Your task to perform on an android device: Open Google Maps Image 0: 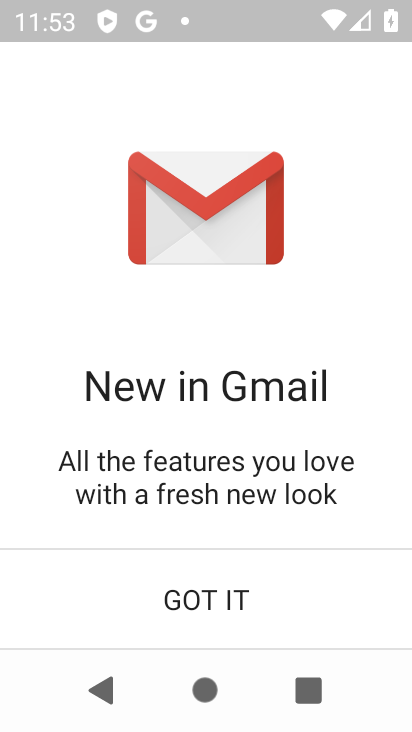
Step 0: press home button
Your task to perform on an android device: Open Google Maps Image 1: 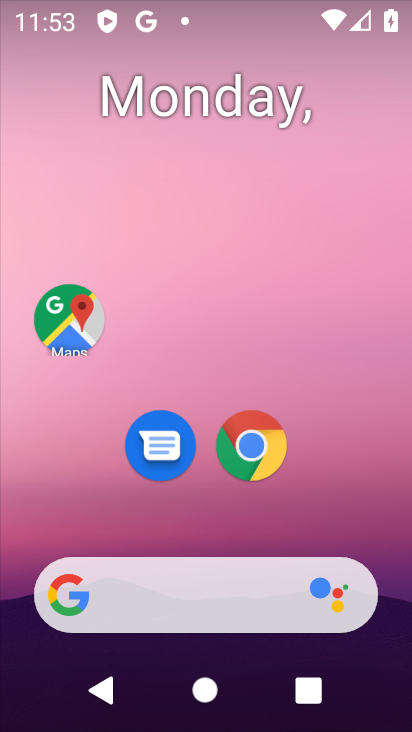
Step 1: click (68, 323)
Your task to perform on an android device: Open Google Maps Image 2: 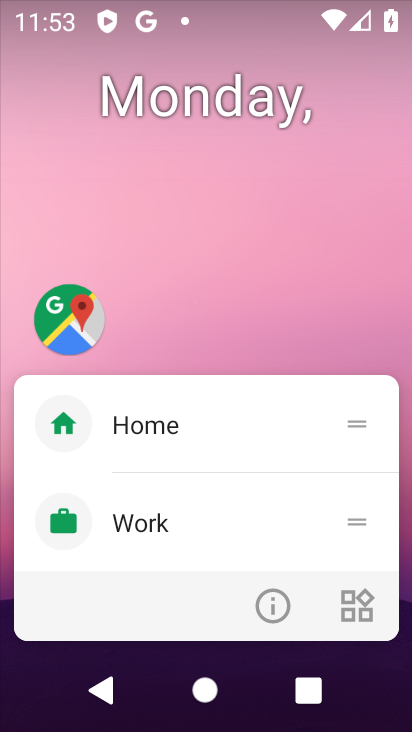
Step 2: click (64, 322)
Your task to perform on an android device: Open Google Maps Image 3: 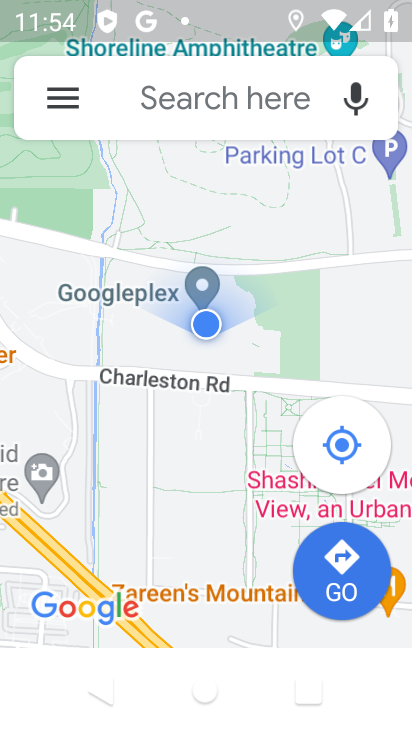
Step 3: task complete